Your task to perform on an android device: Go to notification settings Image 0: 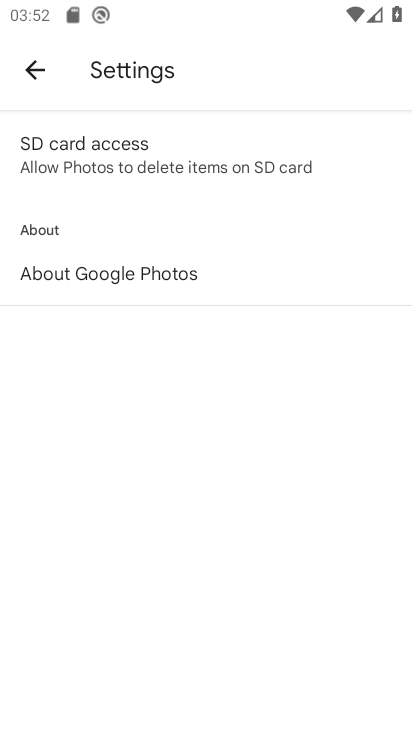
Step 0: press home button
Your task to perform on an android device: Go to notification settings Image 1: 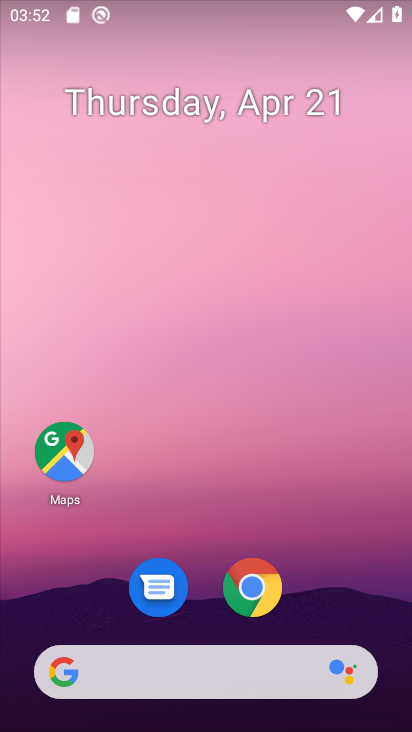
Step 1: drag from (331, 612) to (327, 262)
Your task to perform on an android device: Go to notification settings Image 2: 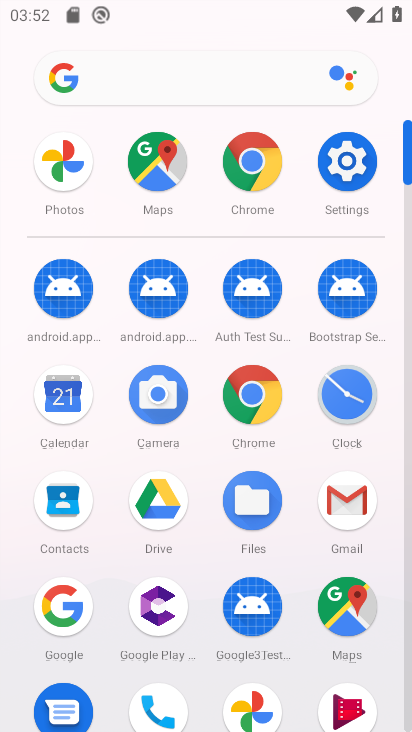
Step 2: click (348, 156)
Your task to perform on an android device: Go to notification settings Image 3: 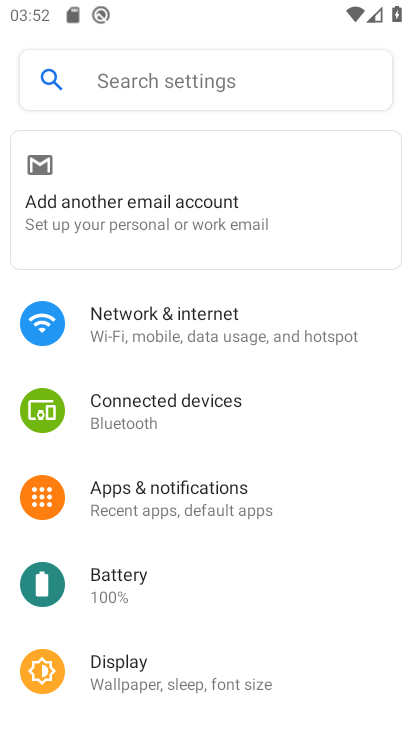
Step 3: drag from (306, 564) to (300, 404)
Your task to perform on an android device: Go to notification settings Image 4: 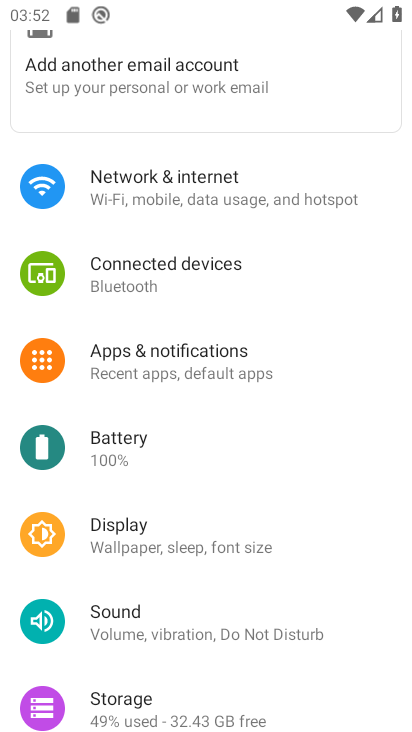
Step 4: drag from (331, 668) to (351, 499)
Your task to perform on an android device: Go to notification settings Image 5: 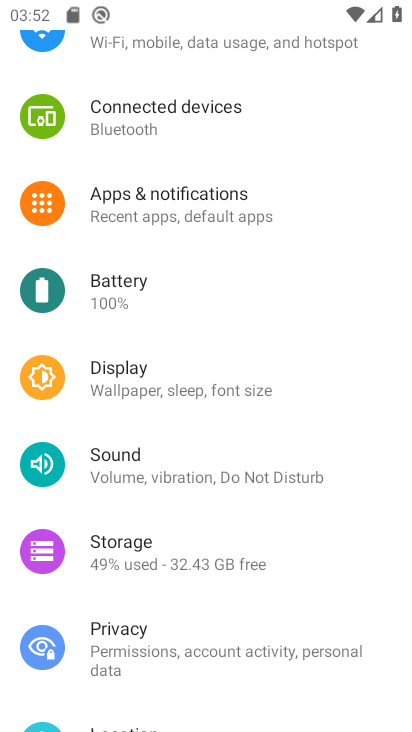
Step 5: drag from (368, 667) to (379, 477)
Your task to perform on an android device: Go to notification settings Image 6: 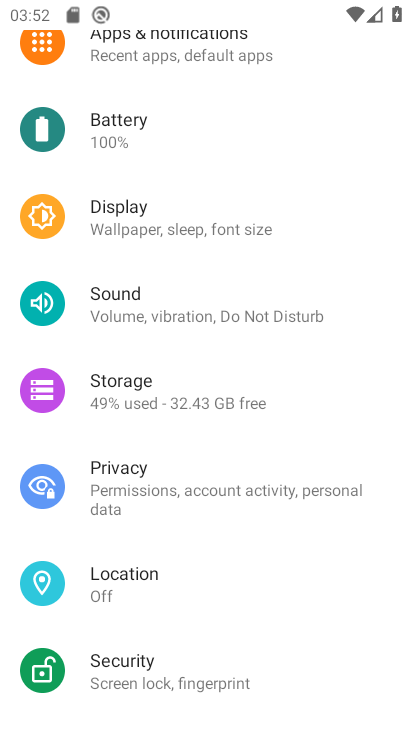
Step 6: drag from (329, 651) to (364, 269)
Your task to perform on an android device: Go to notification settings Image 7: 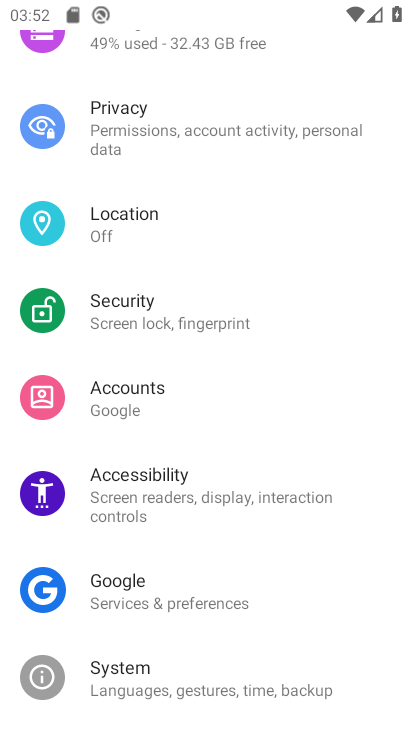
Step 7: drag from (357, 235) to (329, 436)
Your task to perform on an android device: Go to notification settings Image 8: 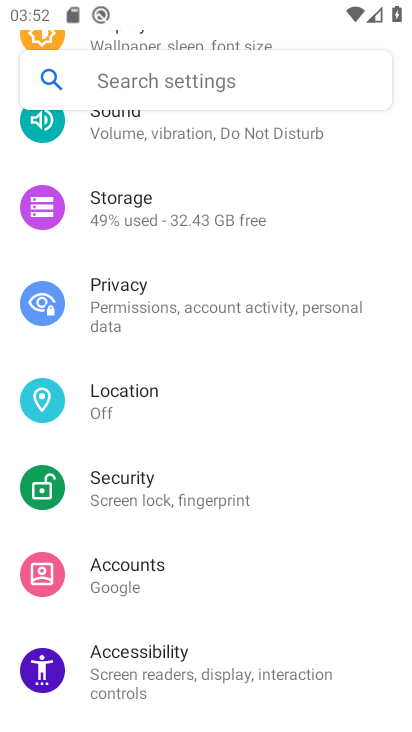
Step 8: drag from (349, 246) to (332, 617)
Your task to perform on an android device: Go to notification settings Image 9: 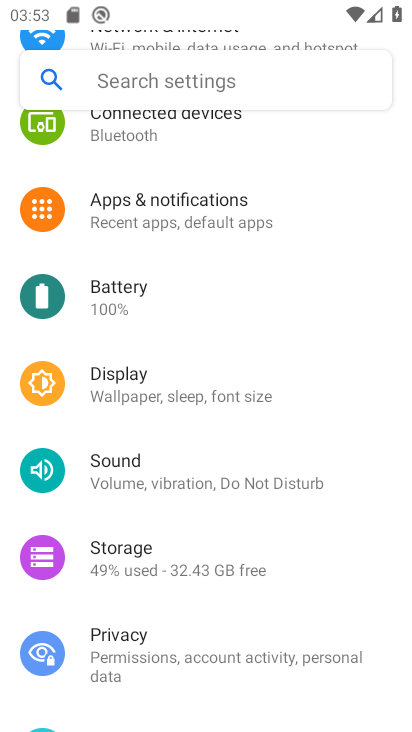
Step 9: drag from (362, 265) to (357, 525)
Your task to perform on an android device: Go to notification settings Image 10: 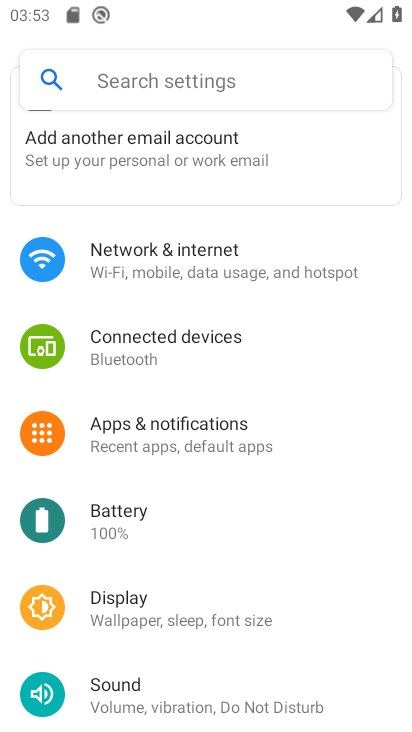
Step 10: click (190, 445)
Your task to perform on an android device: Go to notification settings Image 11: 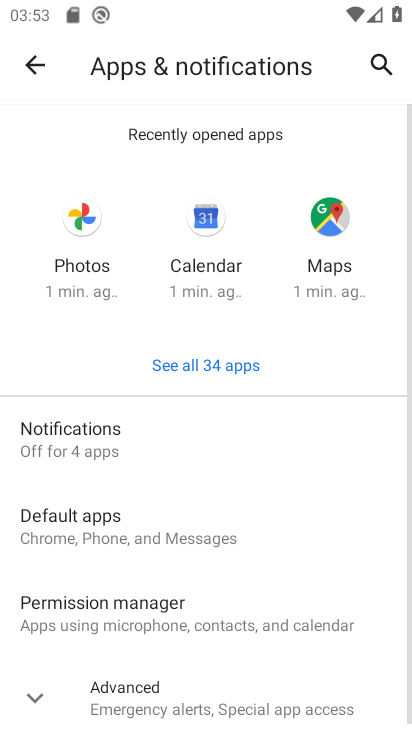
Step 11: click (104, 445)
Your task to perform on an android device: Go to notification settings Image 12: 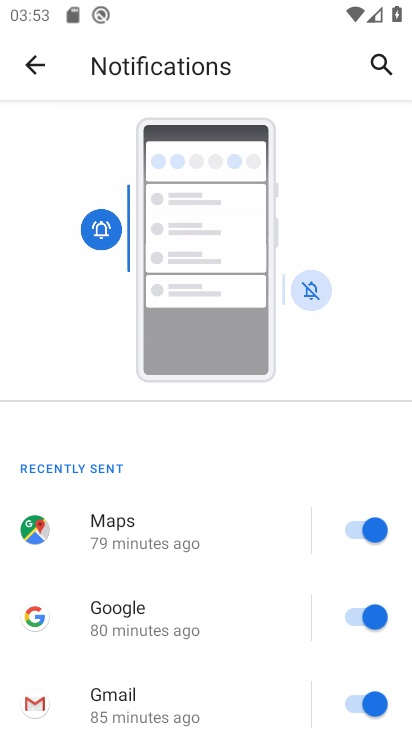
Step 12: task complete